Your task to perform on an android device: Empty the shopping cart on ebay. Search for macbook on ebay, select the first entry, and add it to the cart. Image 0: 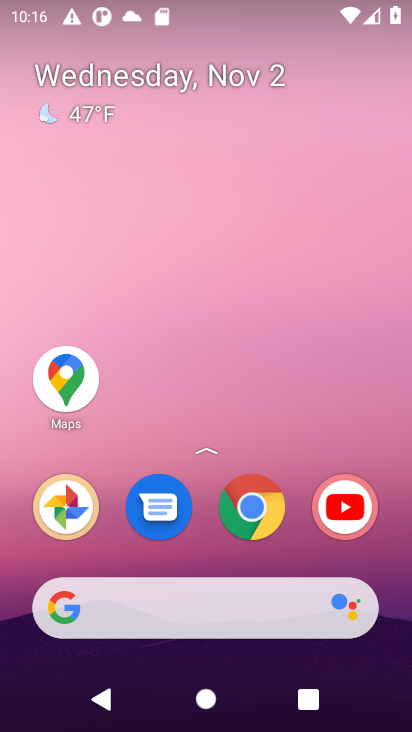
Step 0: click (203, 618)
Your task to perform on an android device: Empty the shopping cart on ebay. Search for macbook on ebay, select the first entry, and add it to the cart. Image 1: 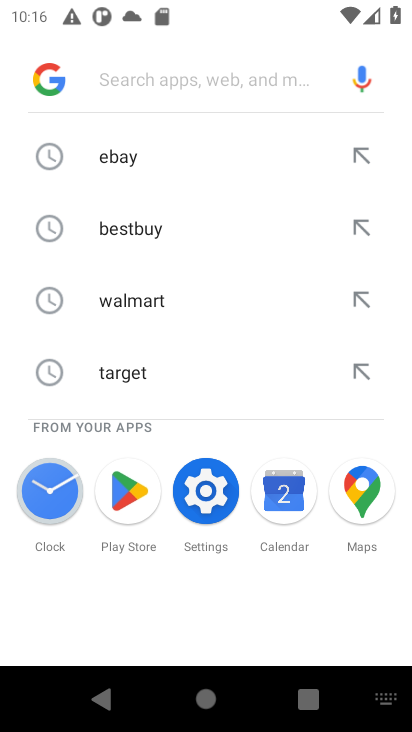
Step 1: click (129, 155)
Your task to perform on an android device: Empty the shopping cart on ebay. Search for macbook on ebay, select the first entry, and add it to the cart. Image 2: 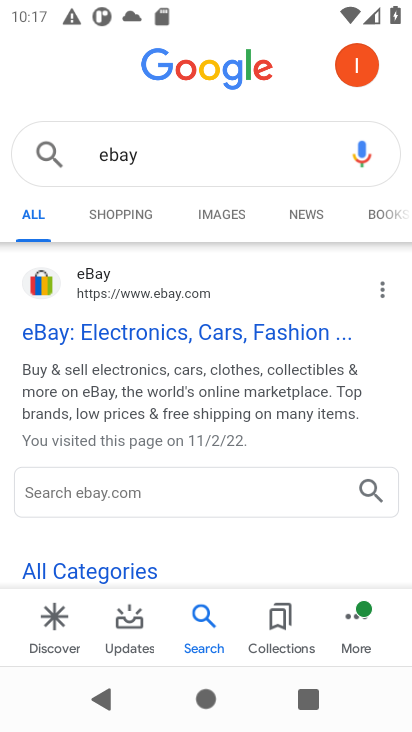
Step 2: click (206, 322)
Your task to perform on an android device: Empty the shopping cart on ebay. Search for macbook on ebay, select the first entry, and add it to the cart. Image 3: 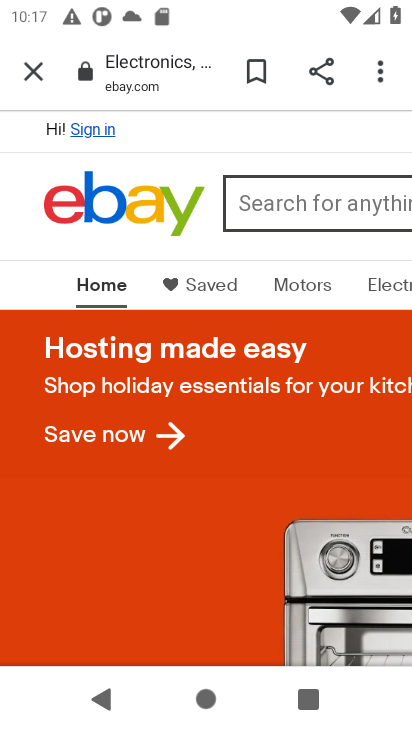
Step 3: task complete